Your task to perform on an android device: Do I have any events today? Image 0: 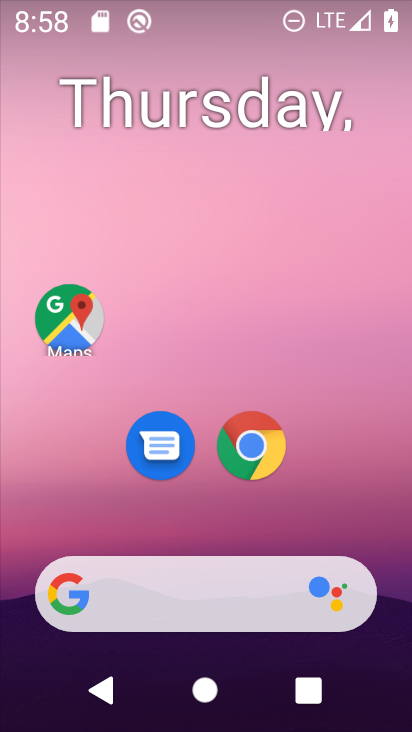
Step 0: drag from (386, 585) to (319, 197)
Your task to perform on an android device: Do I have any events today? Image 1: 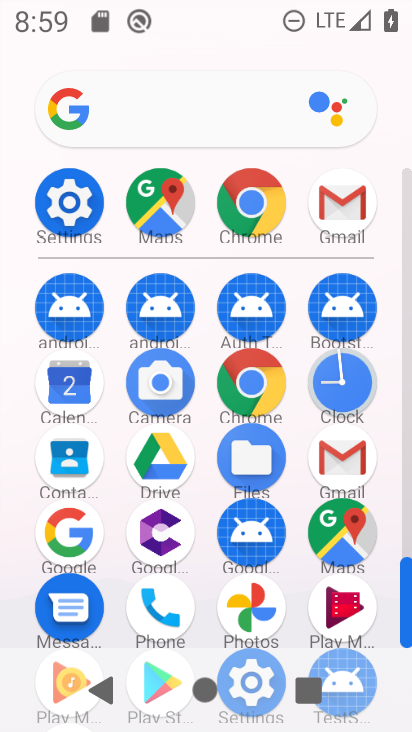
Step 1: click (52, 389)
Your task to perform on an android device: Do I have any events today? Image 2: 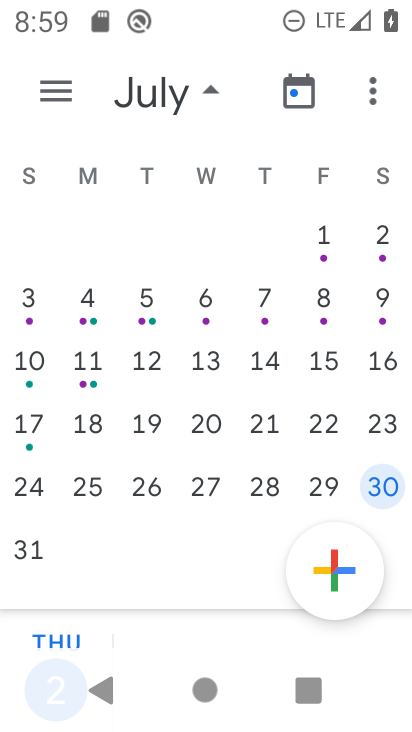
Step 2: task complete